Your task to perform on an android device: Open Yahoo.com Image 0: 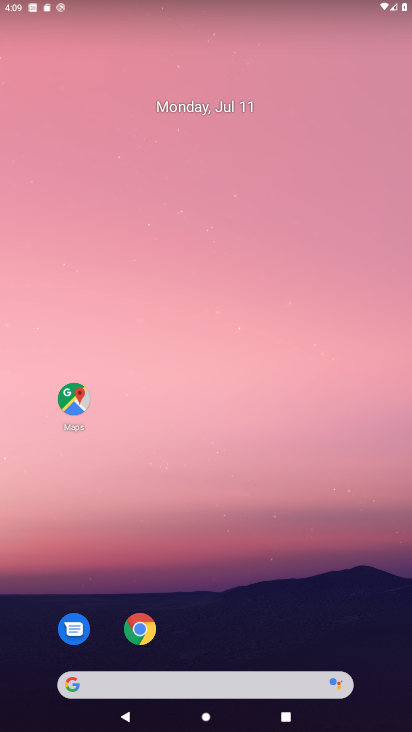
Step 0: click (138, 627)
Your task to perform on an android device: Open Yahoo.com Image 1: 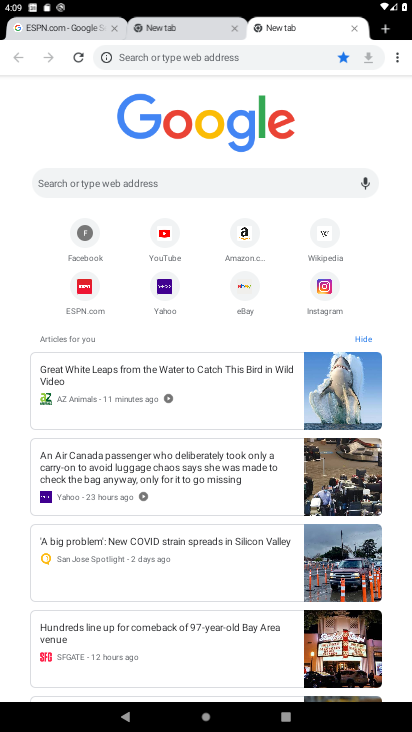
Step 1: click (188, 189)
Your task to perform on an android device: Open Yahoo.com Image 2: 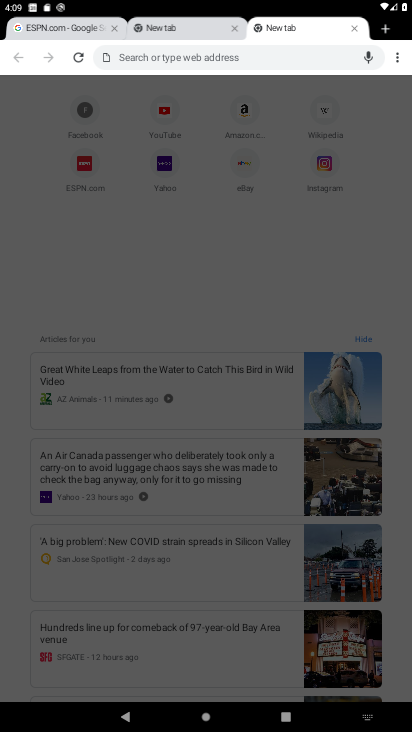
Step 2: type "Yahoo.com"
Your task to perform on an android device: Open Yahoo.com Image 3: 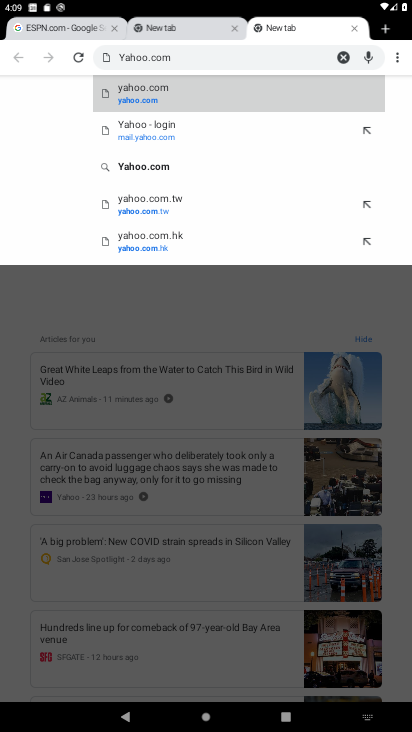
Step 3: click (142, 157)
Your task to perform on an android device: Open Yahoo.com Image 4: 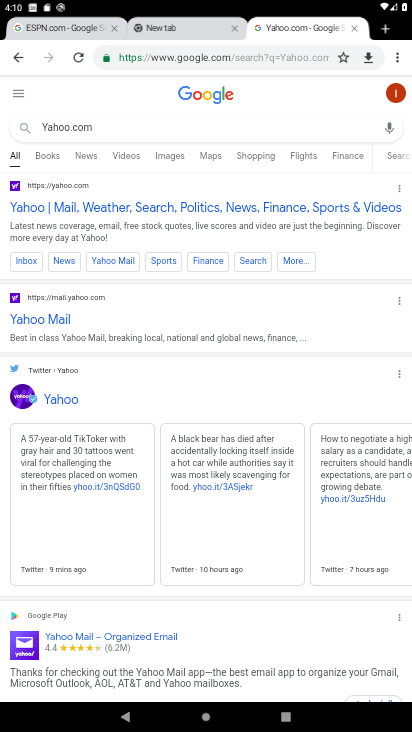
Step 4: task complete